Your task to perform on an android device: Open the web browser Image 0: 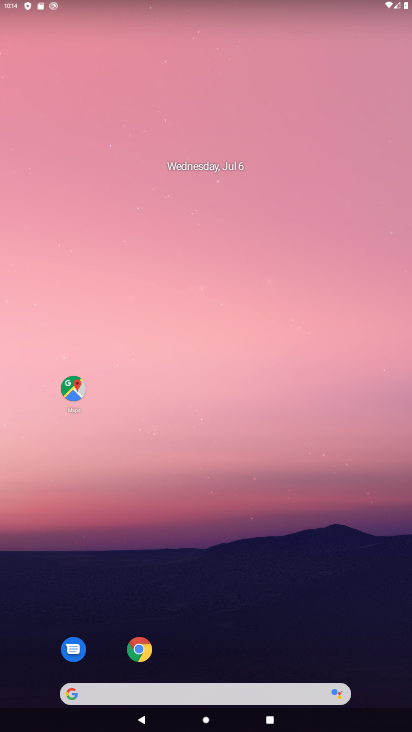
Step 0: click (142, 651)
Your task to perform on an android device: Open the web browser Image 1: 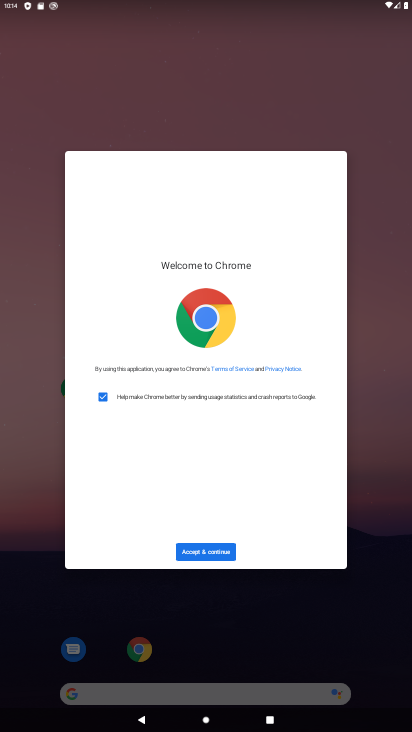
Step 1: click (217, 551)
Your task to perform on an android device: Open the web browser Image 2: 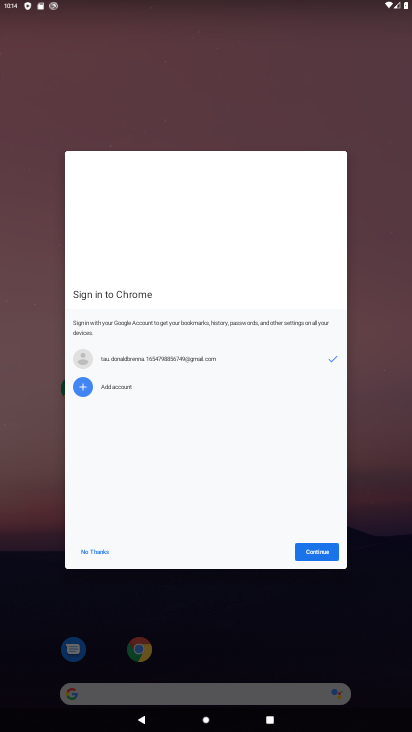
Step 2: click (317, 557)
Your task to perform on an android device: Open the web browser Image 3: 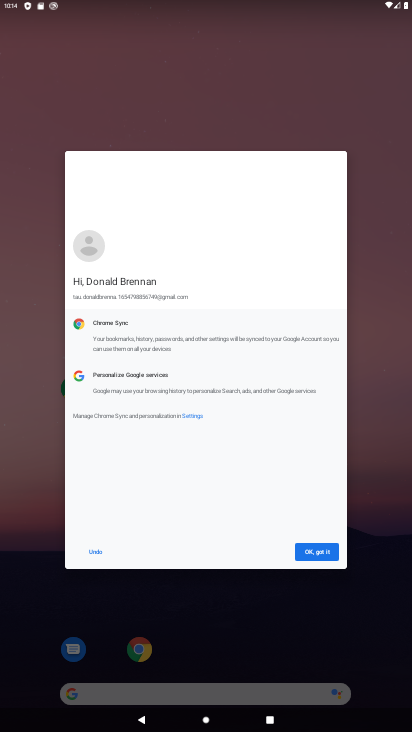
Step 3: click (317, 557)
Your task to perform on an android device: Open the web browser Image 4: 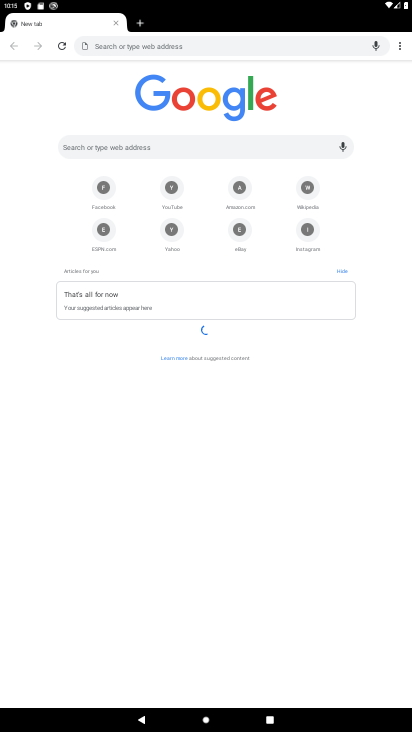
Step 4: task complete